Your task to perform on an android device: turn pop-ups on in chrome Image 0: 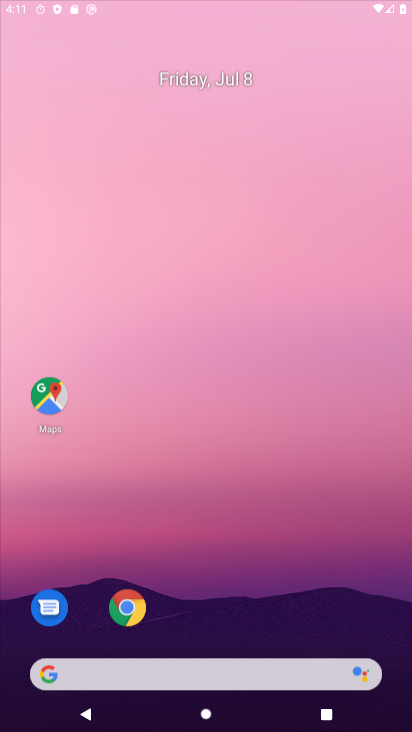
Step 0: press home button
Your task to perform on an android device: turn pop-ups on in chrome Image 1: 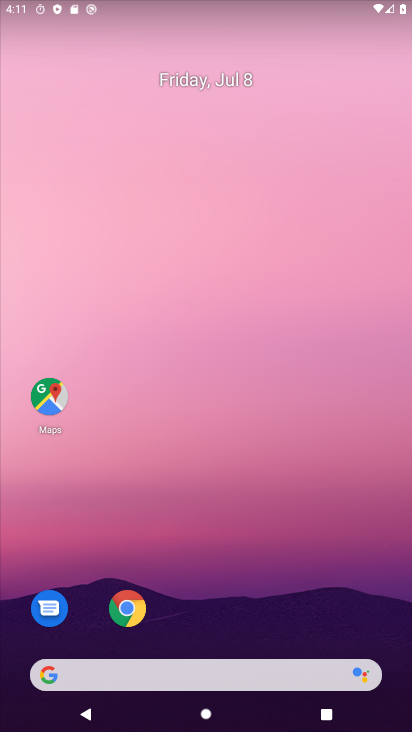
Step 1: press home button
Your task to perform on an android device: turn pop-ups on in chrome Image 2: 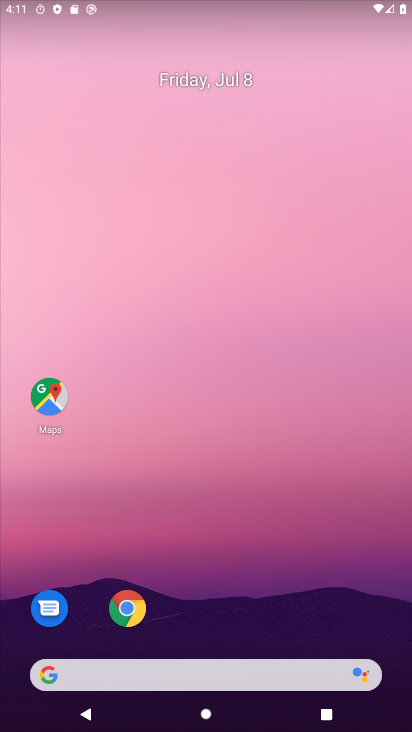
Step 2: drag from (291, 592) to (222, 21)
Your task to perform on an android device: turn pop-ups on in chrome Image 3: 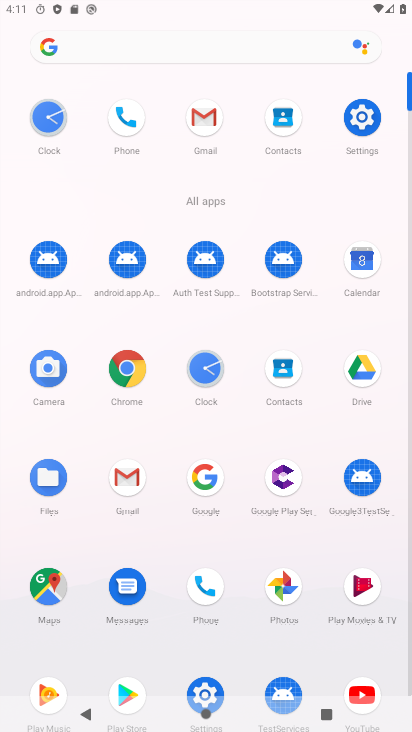
Step 3: click (124, 363)
Your task to perform on an android device: turn pop-ups on in chrome Image 4: 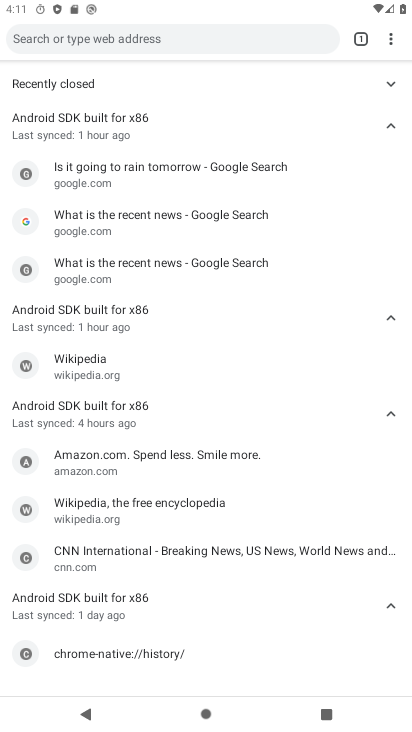
Step 4: click (390, 34)
Your task to perform on an android device: turn pop-ups on in chrome Image 5: 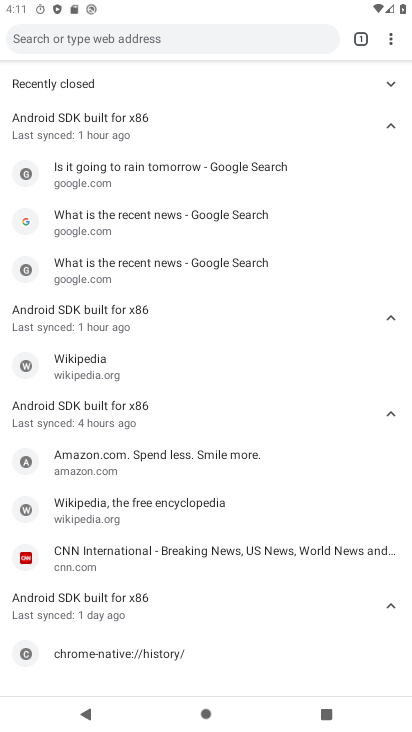
Step 5: drag from (391, 42) to (272, 330)
Your task to perform on an android device: turn pop-ups on in chrome Image 6: 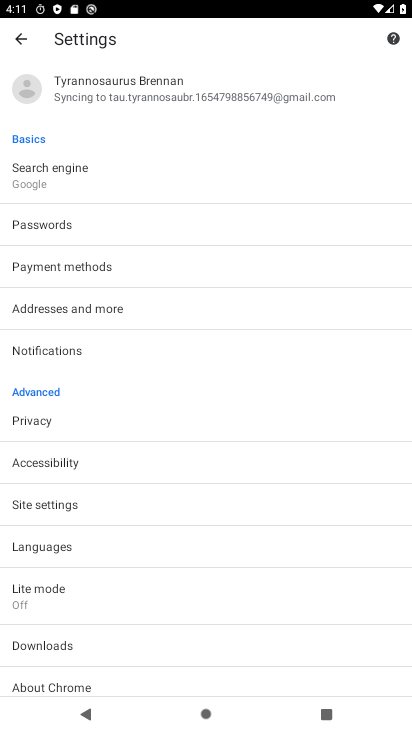
Step 6: click (47, 506)
Your task to perform on an android device: turn pop-ups on in chrome Image 7: 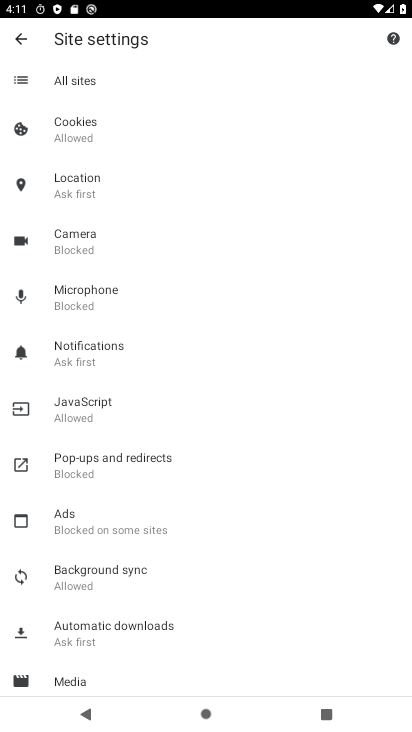
Step 7: click (107, 463)
Your task to perform on an android device: turn pop-ups on in chrome Image 8: 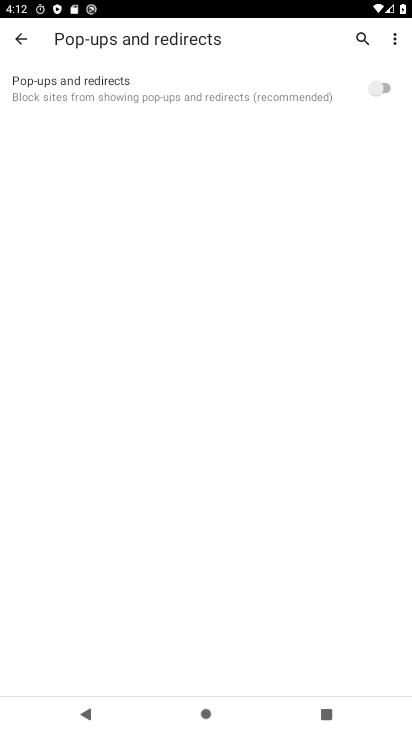
Step 8: click (380, 80)
Your task to perform on an android device: turn pop-ups on in chrome Image 9: 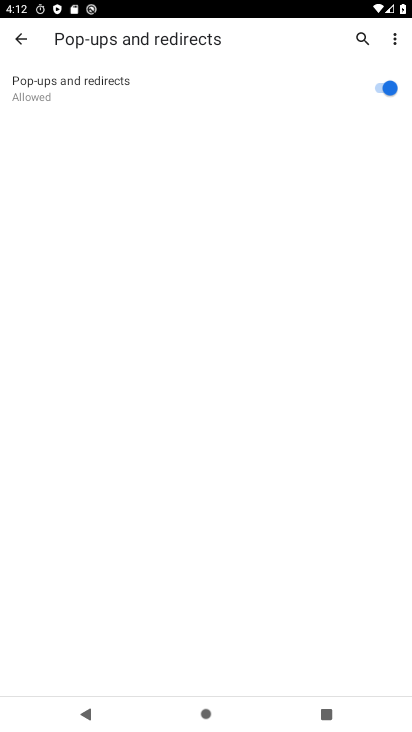
Step 9: task complete